Your task to perform on an android device: Add dell xps to the cart on walmart, then select checkout. Image 0: 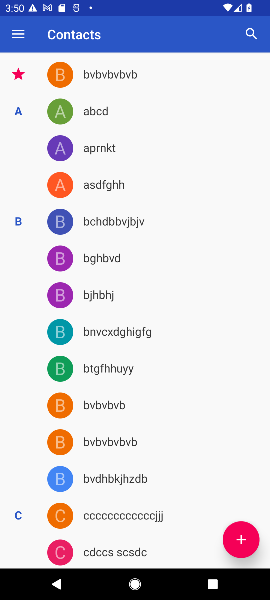
Step 0: press home button
Your task to perform on an android device: Add dell xps to the cart on walmart, then select checkout. Image 1: 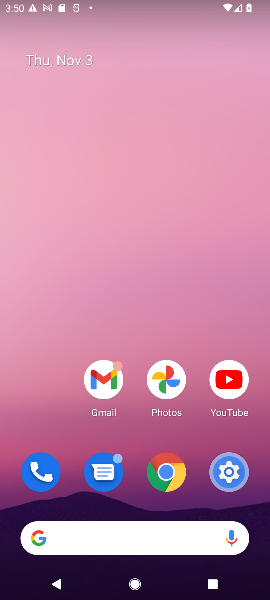
Step 1: click (110, 542)
Your task to perform on an android device: Add dell xps to the cart on walmart, then select checkout. Image 2: 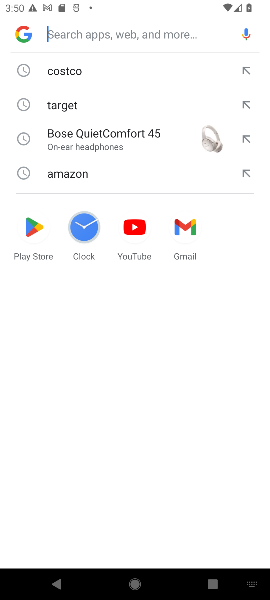
Step 2: type "walmart"
Your task to perform on an android device: Add dell xps to the cart on walmart, then select checkout. Image 3: 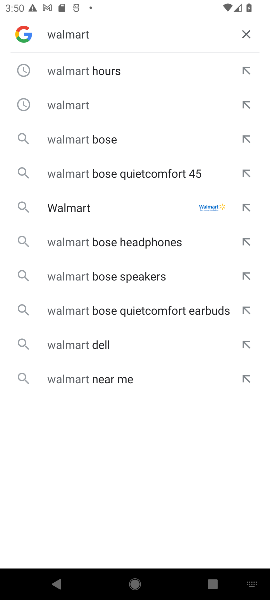
Step 3: click (110, 106)
Your task to perform on an android device: Add dell xps to the cart on walmart, then select checkout. Image 4: 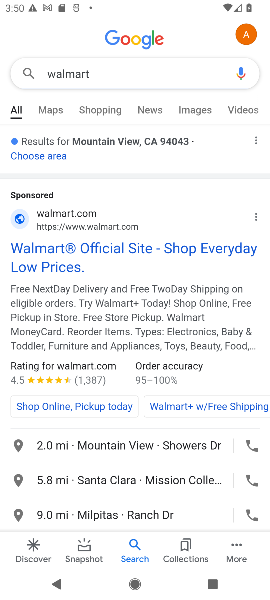
Step 4: click (91, 244)
Your task to perform on an android device: Add dell xps to the cart on walmart, then select checkout. Image 5: 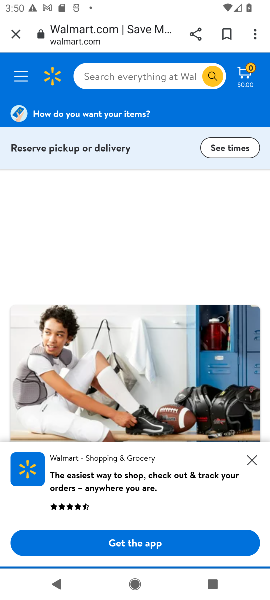
Step 5: click (151, 79)
Your task to perform on an android device: Add dell xps to the cart on walmart, then select checkout. Image 6: 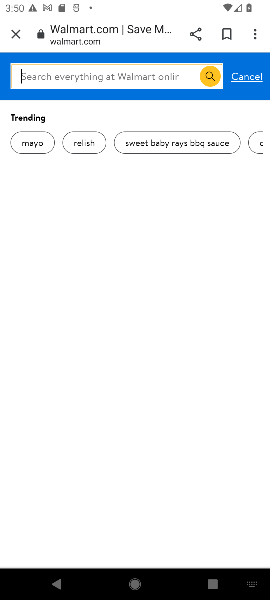
Step 6: type "dell xps"
Your task to perform on an android device: Add dell xps to the cart on walmart, then select checkout. Image 7: 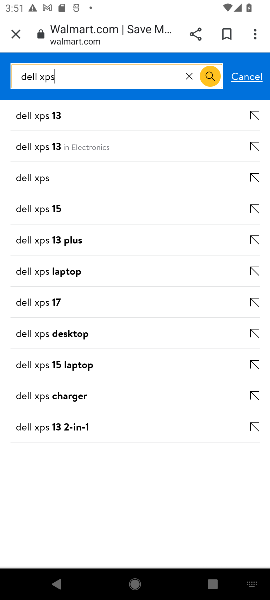
Step 7: click (229, 122)
Your task to perform on an android device: Add dell xps to the cart on walmart, then select checkout. Image 8: 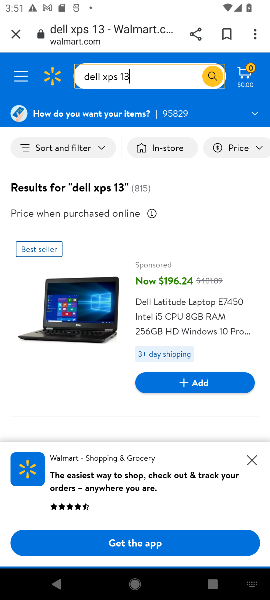
Step 8: click (259, 465)
Your task to perform on an android device: Add dell xps to the cart on walmart, then select checkout. Image 9: 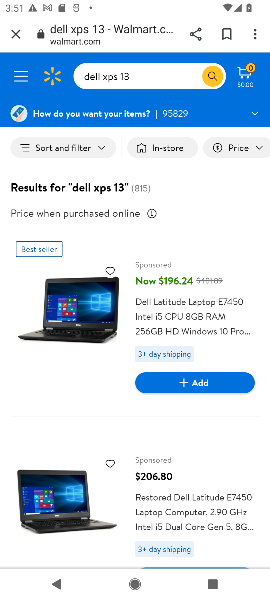
Step 9: click (216, 386)
Your task to perform on an android device: Add dell xps to the cart on walmart, then select checkout. Image 10: 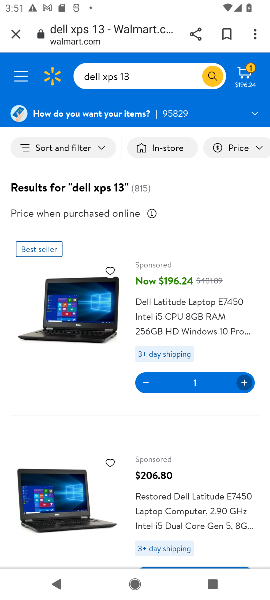
Step 10: task complete